Your task to perform on an android device: Open calendar and show me the third week of next month Image 0: 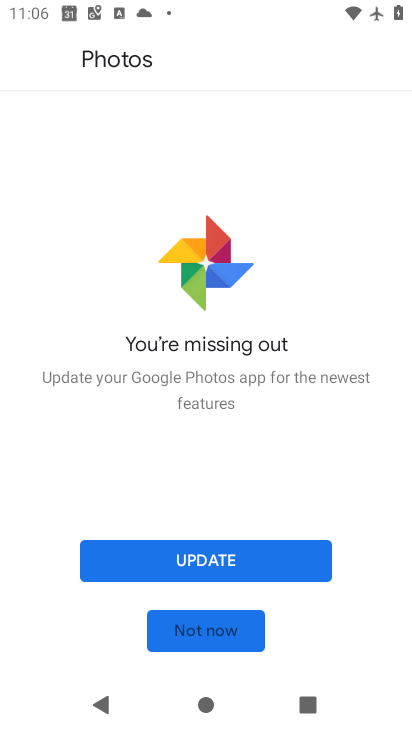
Step 0: press home button
Your task to perform on an android device: Open calendar and show me the third week of next month Image 1: 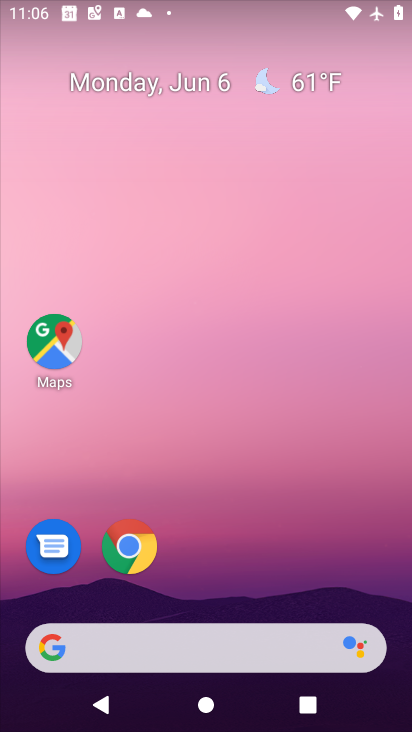
Step 1: drag from (406, 641) to (334, 81)
Your task to perform on an android device: Open calendar and show me the third week of next month Image 2: 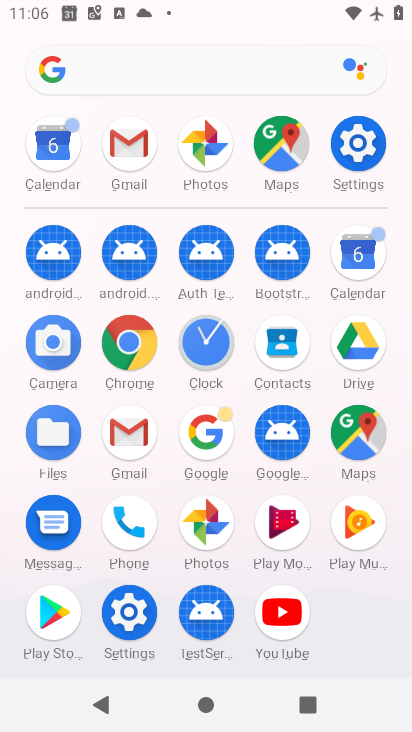
Step 2: click (359, 255)
Your task to perform on an android device: Open calendar and show me the third week of next month Image 3: 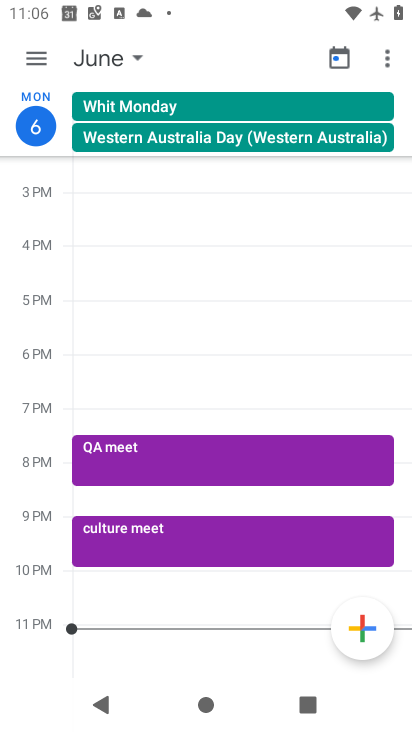
Step 3: click (38, 56)
Your task to perform on an android device: Open calendar and show me the third week of next month Image 4: 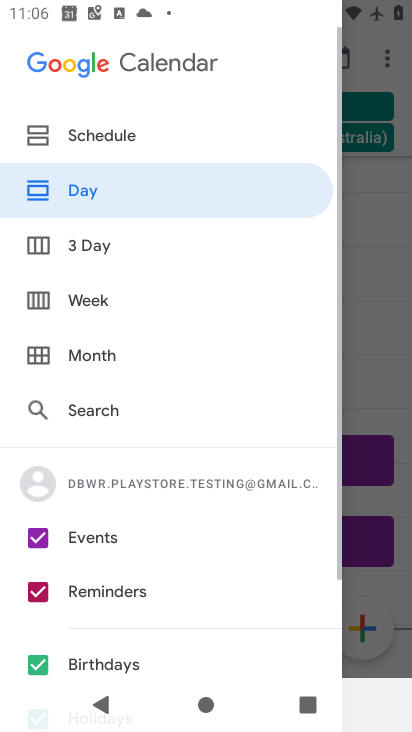
Step 4: click (97, 290)
Your task to perform on an android device: Open calendar and show me the third week of next month Image 5: 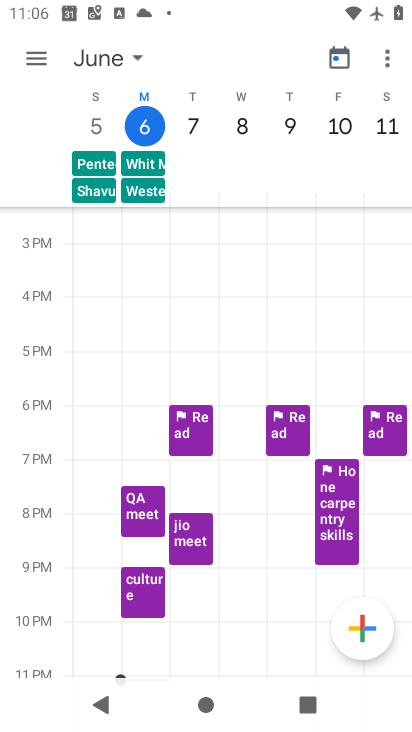
Step 5: click (133, 55)
Your task to perform on an android device: Open calendar and show me the third week of next month Image 6: 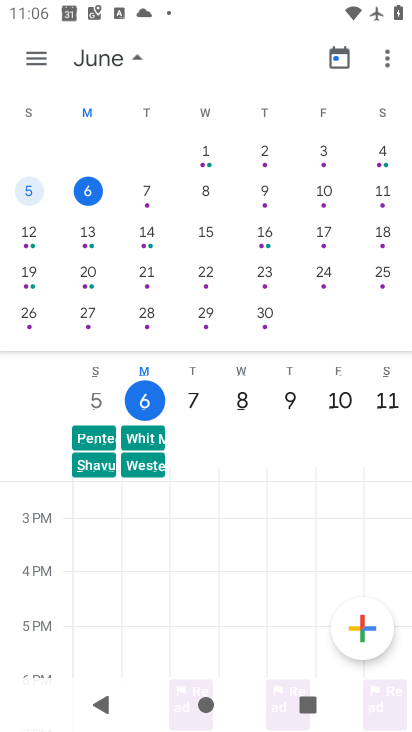
Step 6: drag from (386, 249) to (87, 247)
Your task to perform on an android device: Open calendar and show me the third week of next month Image 7: 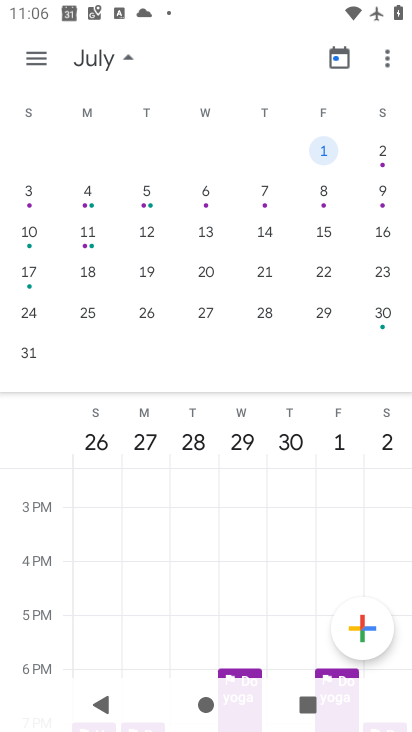
Step 7: click (30, 273)
Your task to perform on an android device: Open calendar and show me the third week of next month Image 8: 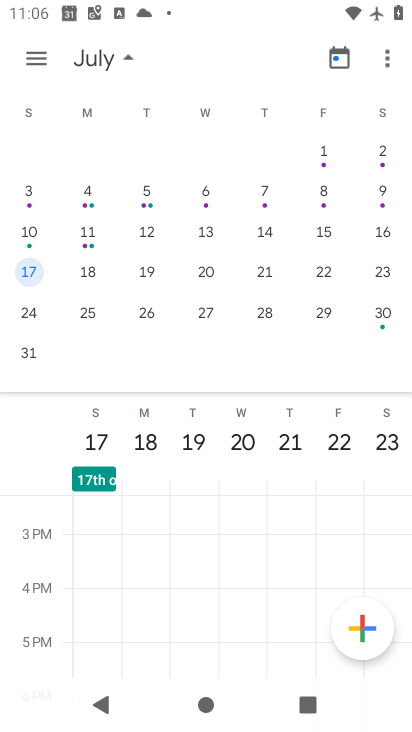
Step 8: task complete